Your task to perform on an android device: Go to CNN.com Image 0: 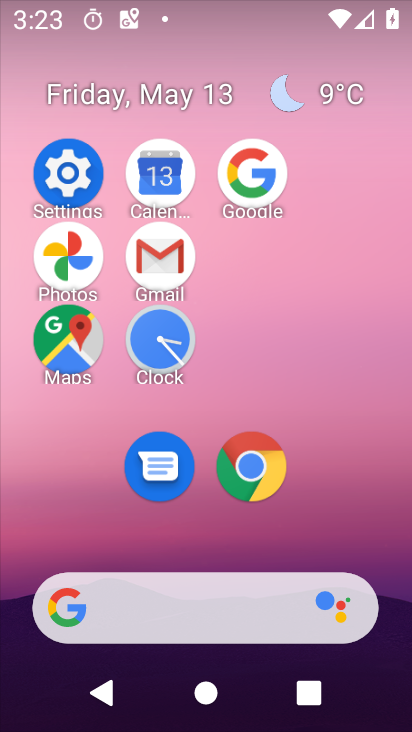
Step 0: click (269, 466)
Your task to perform on an android device: Go to CNN.com Image 1: 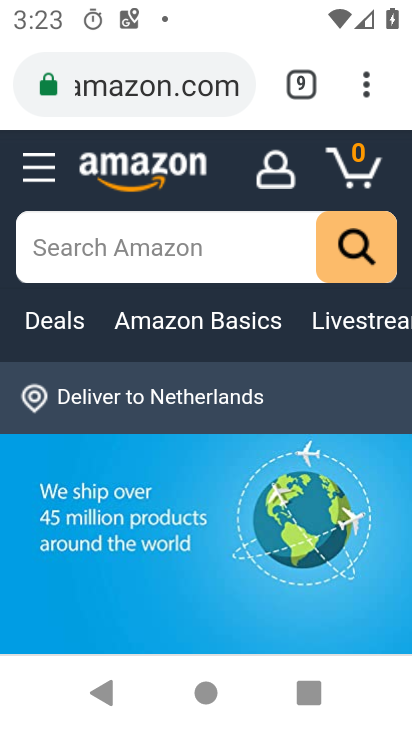
Step 1: click (312, 78)
Your task to perform on an android device: Go to CNN.com Image 2: 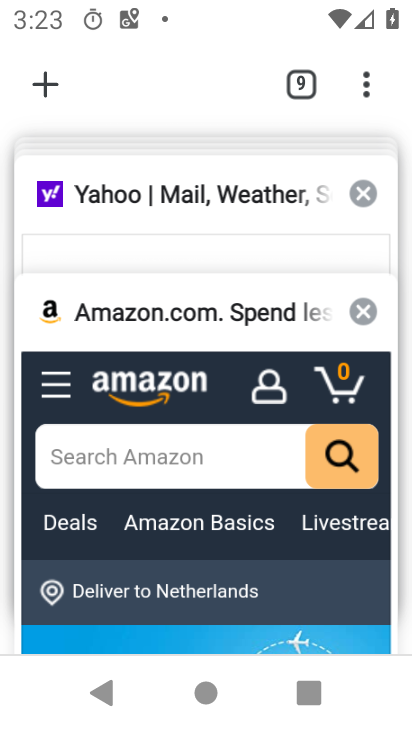
Step 2: drag from (180, 252) to (204, 536)
Your task to perform on an android device: Go to CNN.com Image 3: 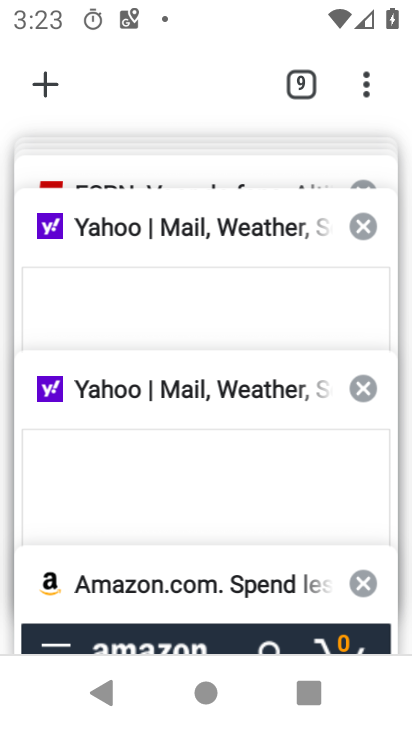
Step 3: drag from (205, 211) to (200, 516)
Your task to perform on an android device: Go to CNN.com Image 4: 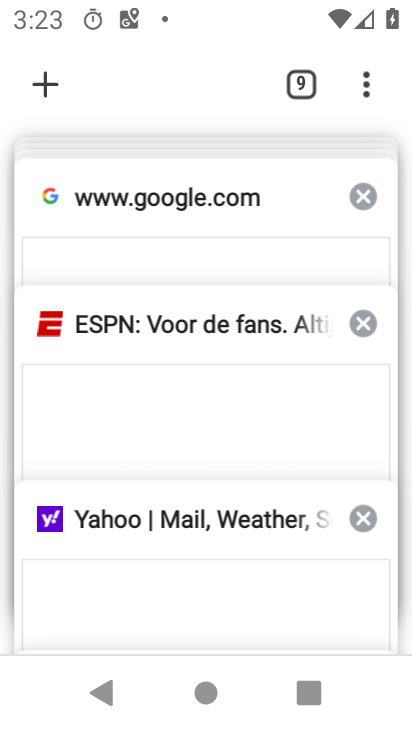
Step 4: drag from (180, 215) to (172, 525)
Your task to perform on an android device: Go to CNN.com Image 5: 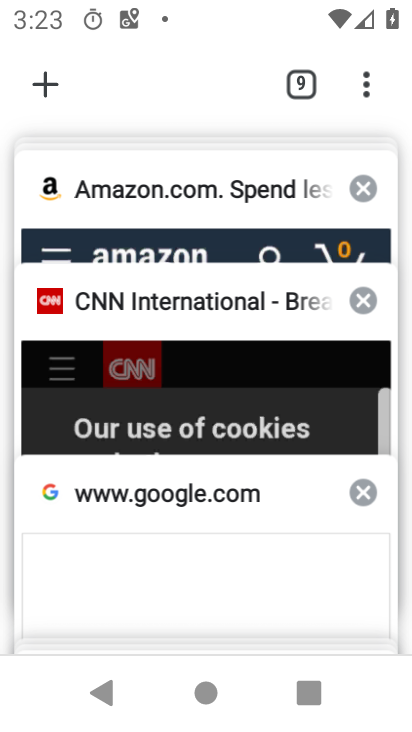
Step 5: click (202, 334)
Your task to perform on an android device: Go to CNN.com Image 6: 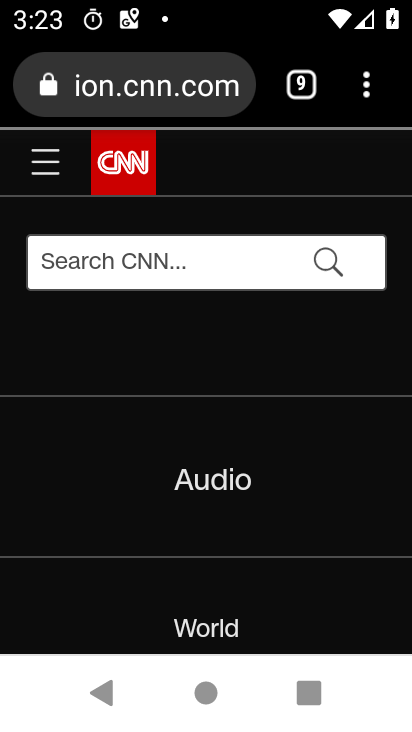
Step 6: task complete